Your task to perform on an android device: empty trash in the gmail app Image 0: 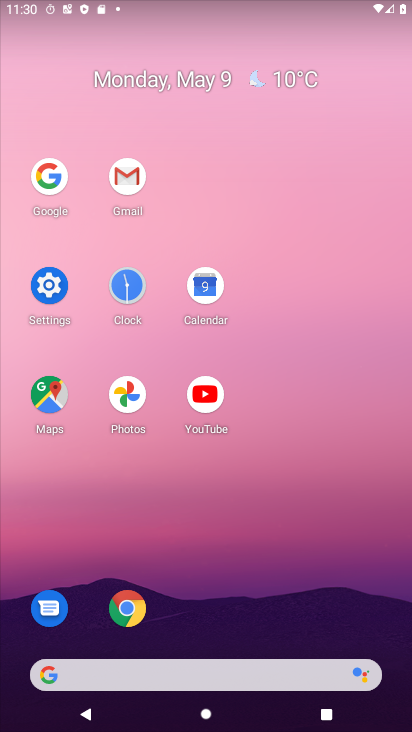
Step 0: click (135, 181)
Your task to perform on an android device: empty trash in the gmail app Image 1: 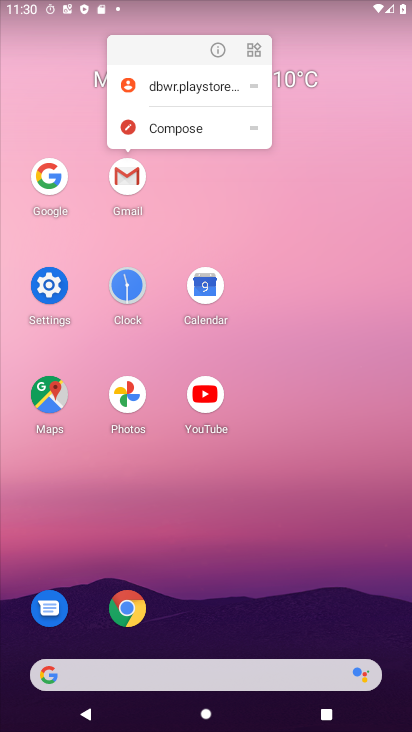
Step 1: click (138, 183)
Your task to perform on an android device: empty trash in the gmail app Image 2: 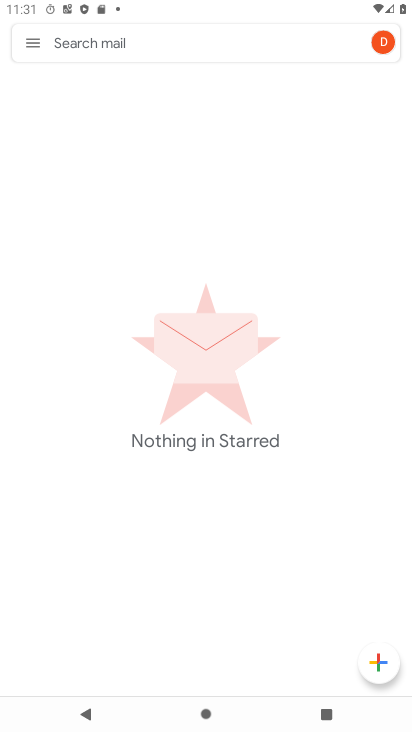
Step 2: click (18, 44)
Your task to perform on an android device: empty trash in the gmail app Image 3: 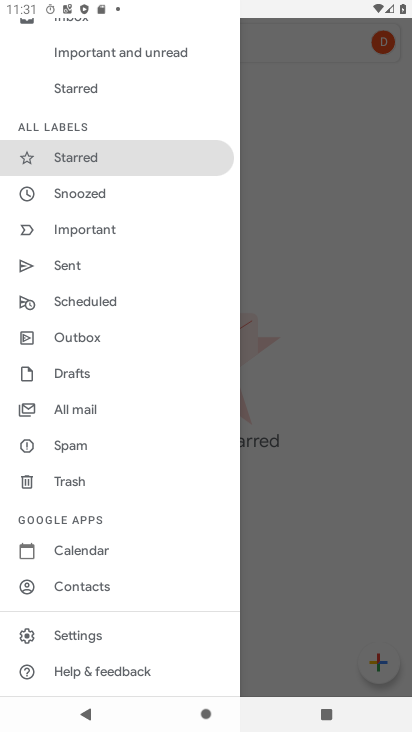
Step 3: click (86, 480)
Your task to perform on an android device: empty trash in the gmail app Image 4: 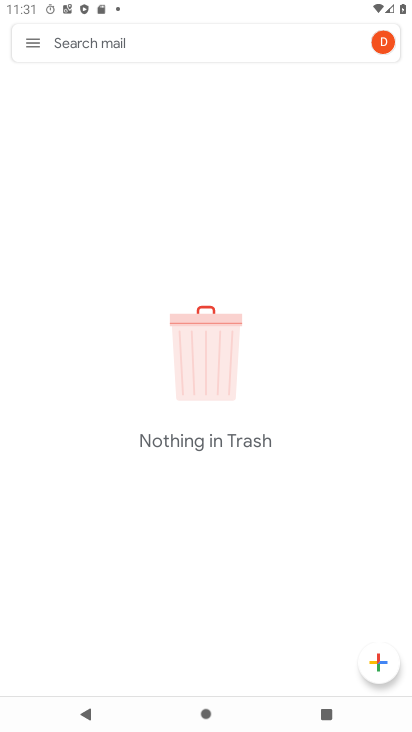
Step 4: task complete